Your task to perform on an android device: Search for vegetarian restaurants on Maps Image 0: 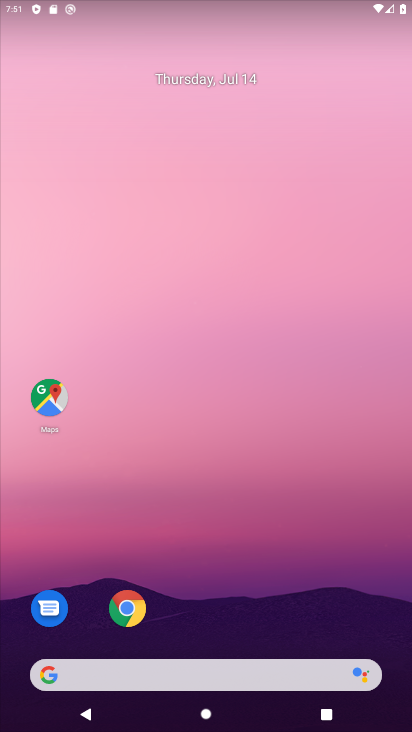
Step 0: click (46, 397)
Your task to perform on an android device: Search for vegetarian restaurants on Maps Image 1: 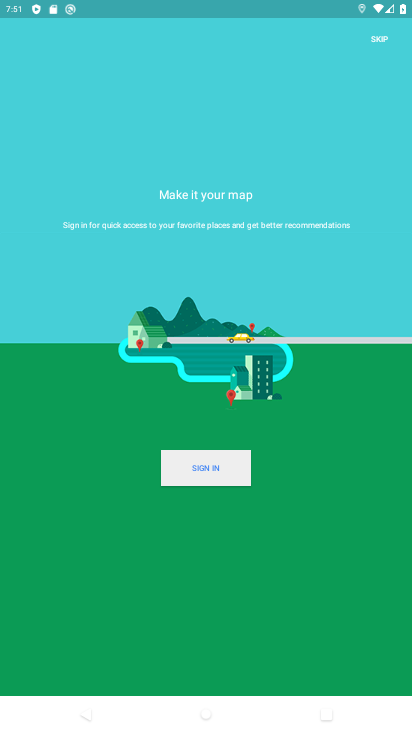
Step 1: click (379, 35)
Your task to perform on an android device: Search for vegetarian restaurants on Maps Image 2: 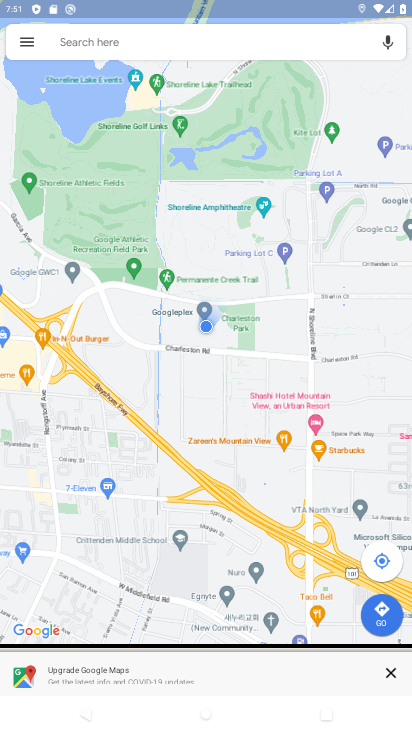
Step 2: click (149, 46)
Your task to perform on an android device: Search for vegetarian restaurants on Maps Image 3: 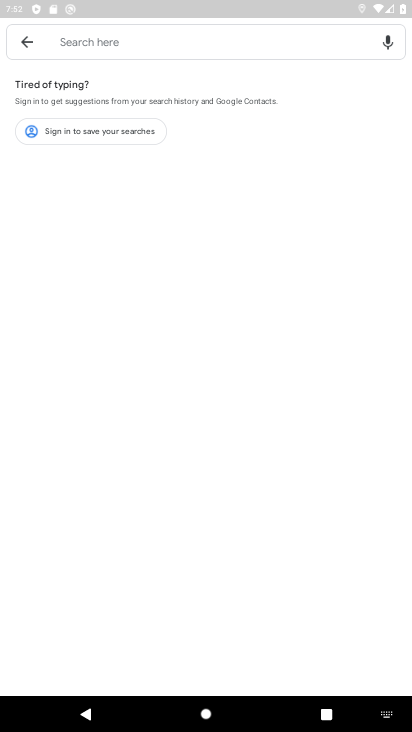
Step 3: type "vegetarian restaurants"
Your task to perform on an android device: Search for vegetarian restaurants on Maps Image 4: 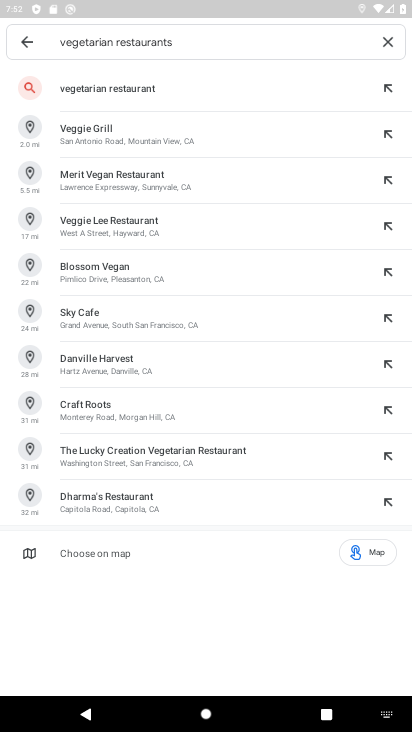
Step 4: click (148, 83)
Your task to perform on an android device: Search for vegetarian restaurants on Maps Image 5: 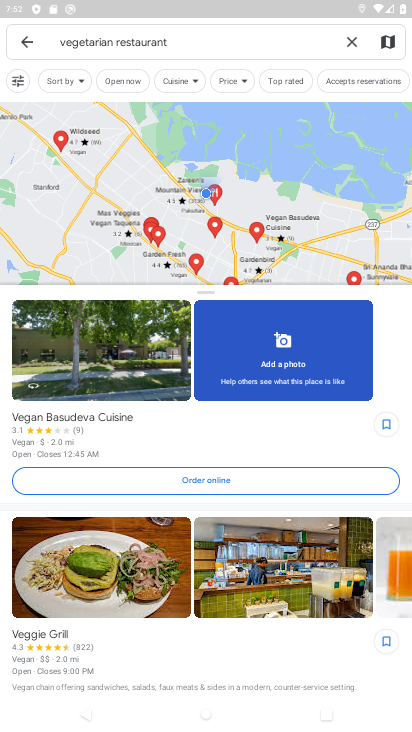
Step 5: task complete